Your task to perform on an android device: Search for flights from Zurich to Buenos aires Image 0: 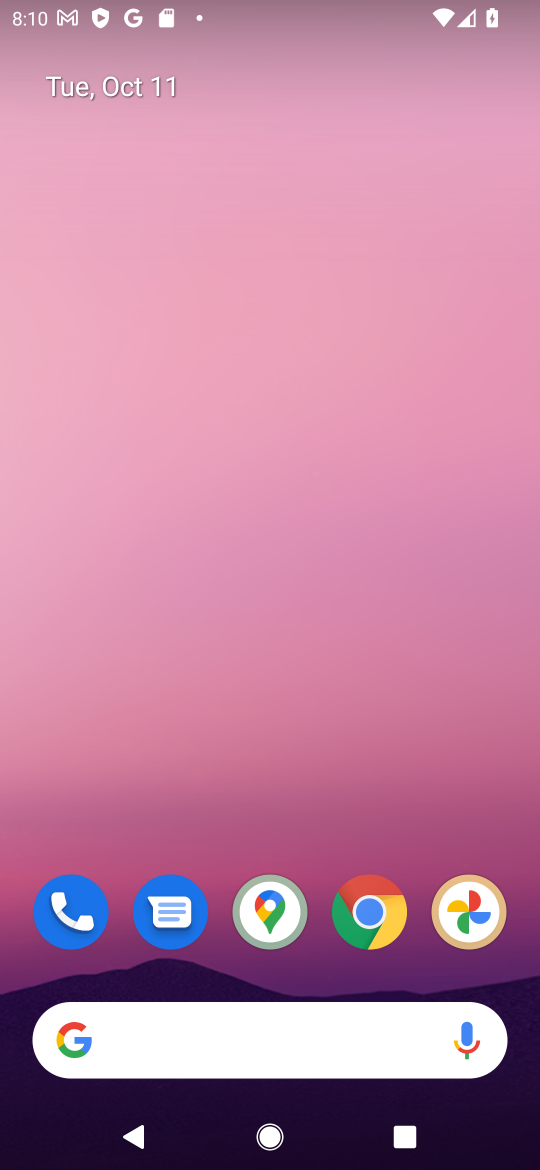
Step 0: click (370, 902)
Your task to perform on an android device: Search for flights from Zurich to Buenos aires Image 1: 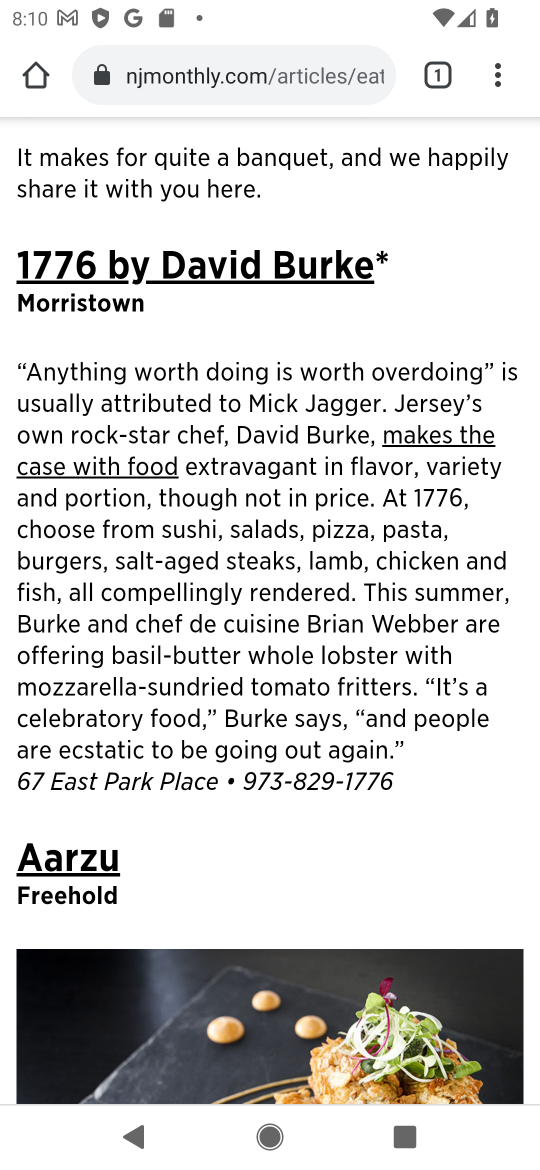
Step 1: click (226, 57)
Your task to perform on an android device: Search for flights from Zurich to Buenos aires Image 2: 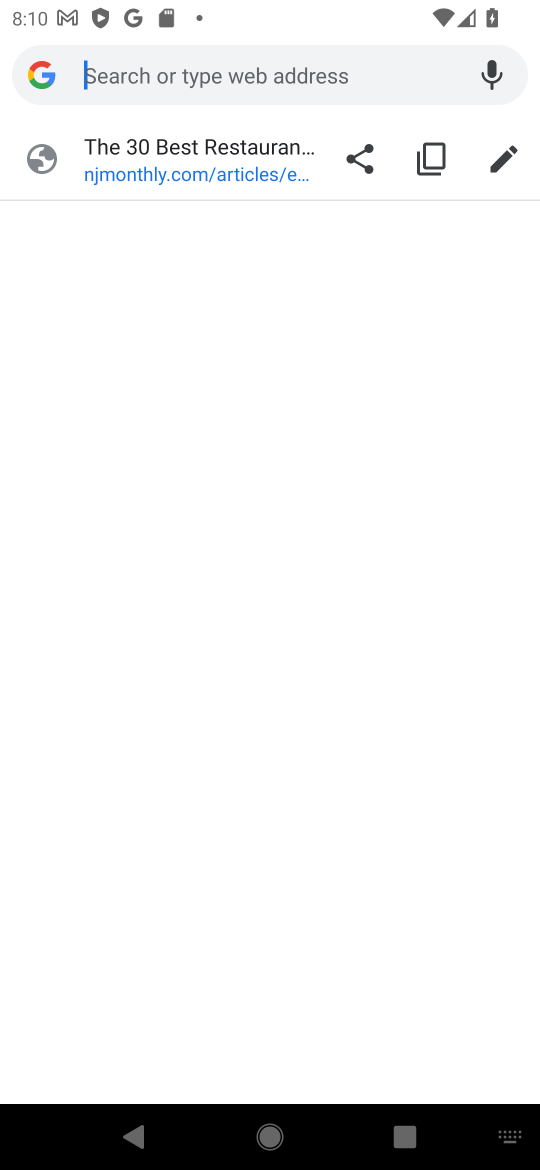
Step 2: type "expedia"
Your task to perform on an android device: Search for flights from Zurich to Buenos aires Image 3: 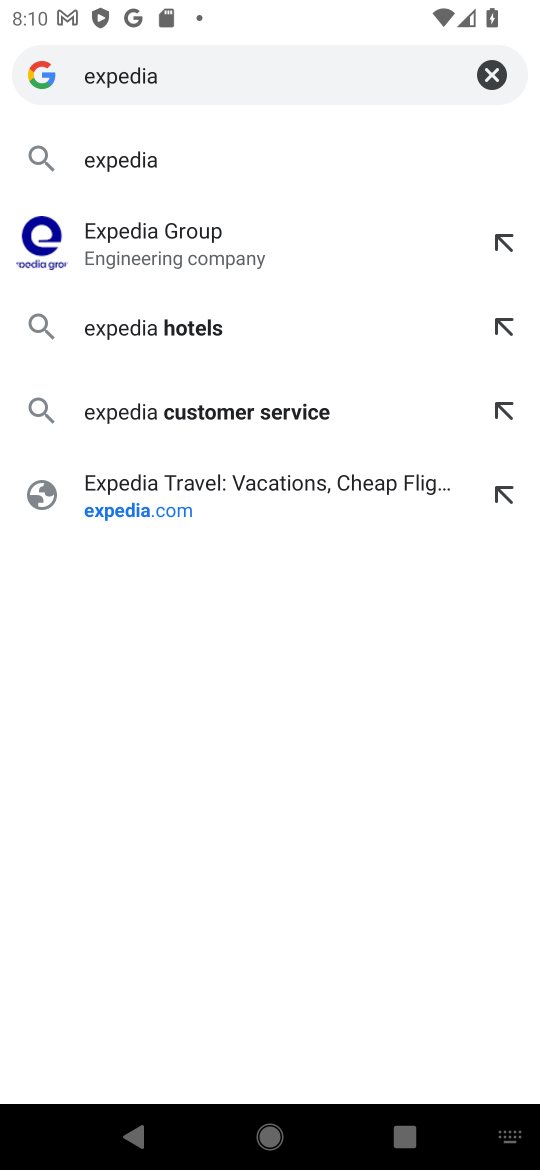
Step 3: click (117, 153)
Your task to perform on an android device: Search for flights from Zurich to Buenos aires Image 4: 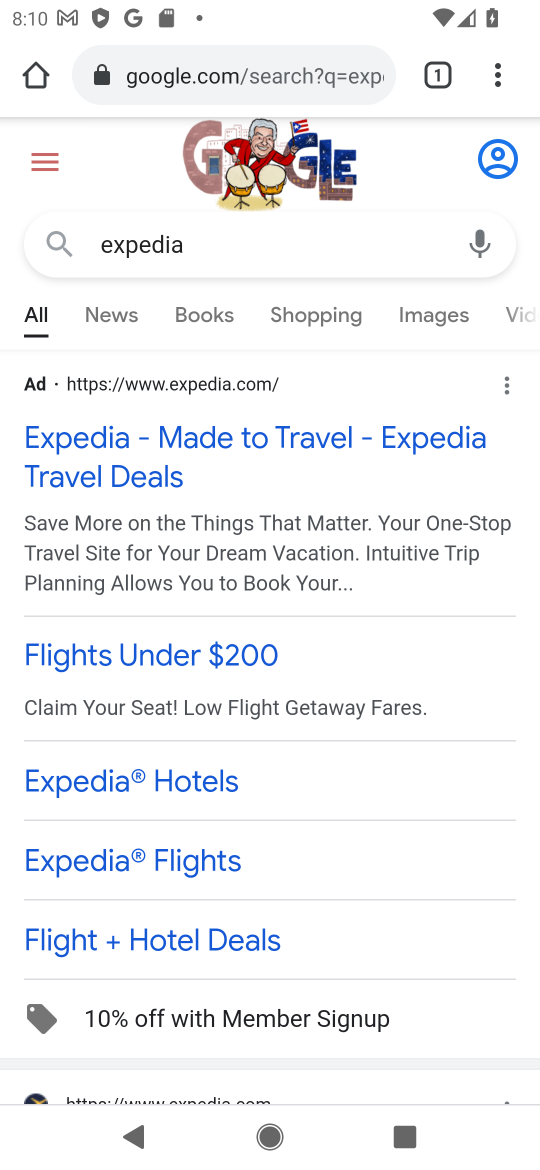
Step 4: click (168, 390)
Your task to perform on an android device: Search for flights from Zurich to Buenos aires Image 5: 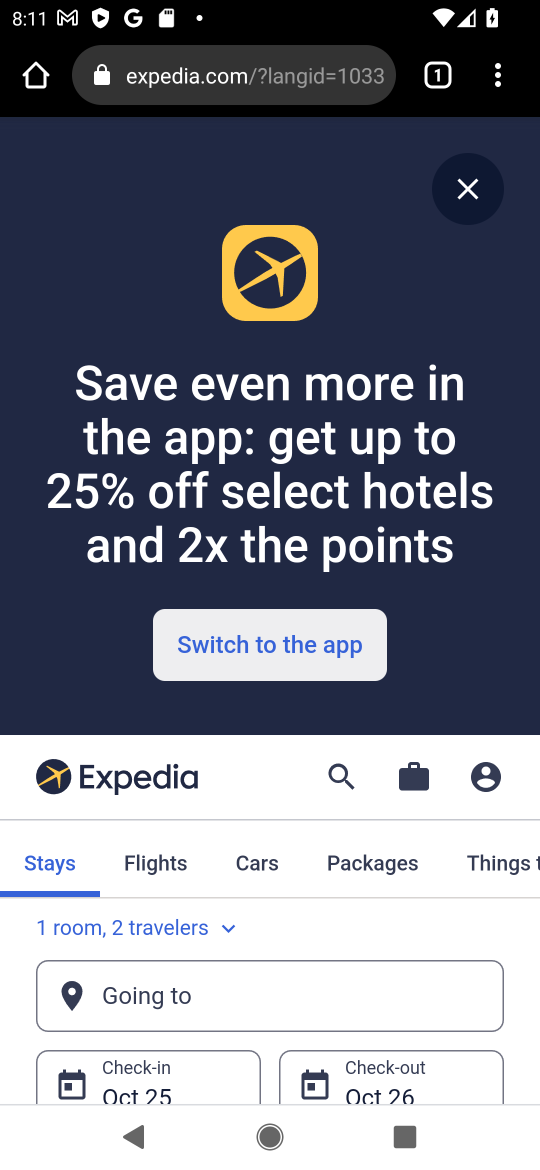
Step 5: click (468, 184)
Your task to perform on an android device: Search for flights from Zurich to Buenos aires Image 6: 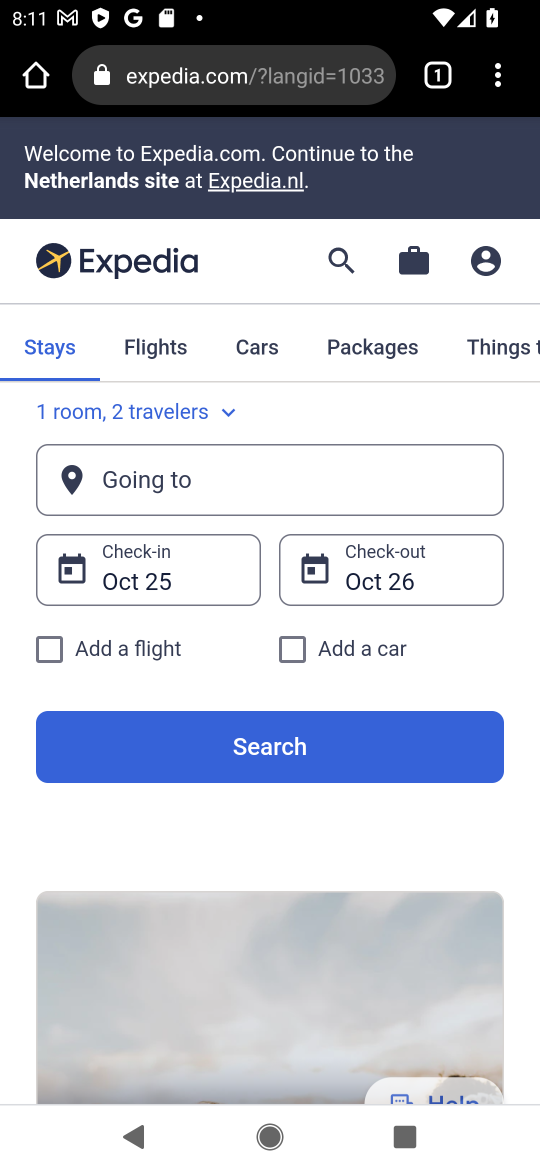
Step 6: click (154, 351)
Your task to perform on an android device: Search for flights from Zurich to Buenos aires Image 7: 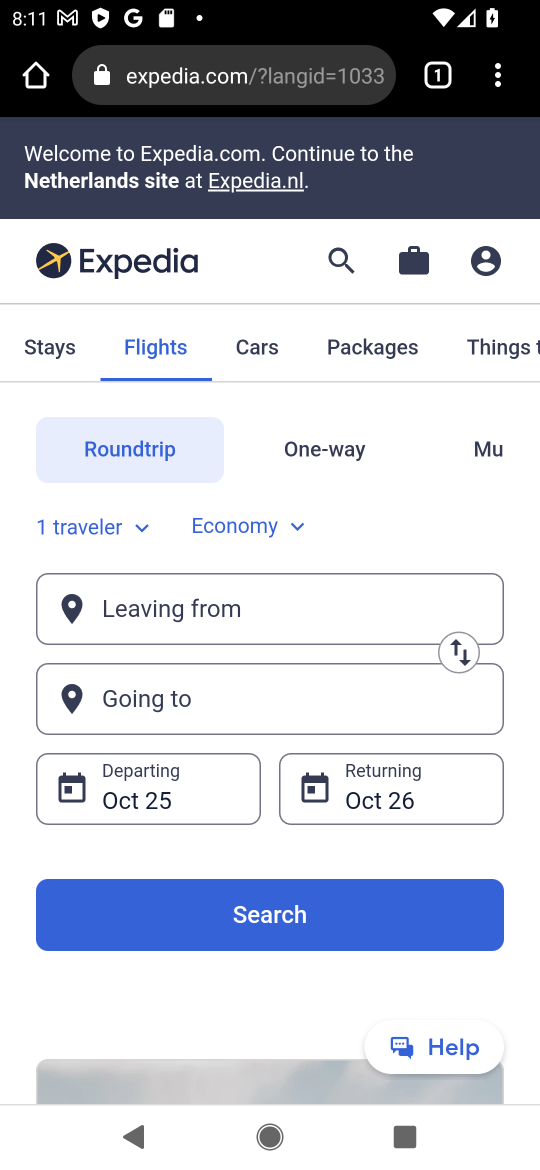
Step 7: click (77, 598)
Your task to perform on an android device: Search for flights from Zurich to Buenos aires Image 8: 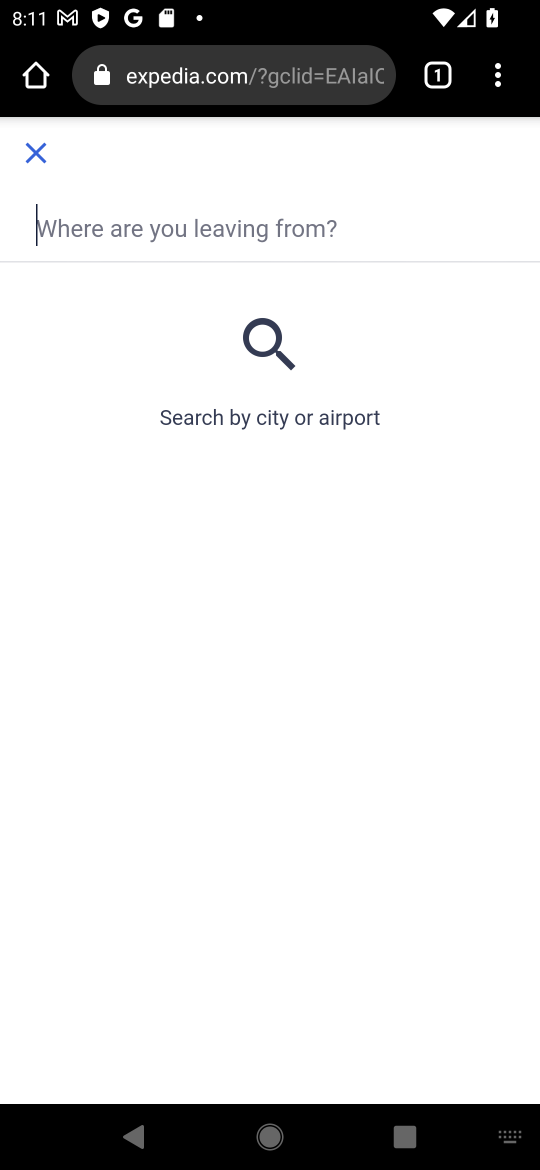
Step 8: type "zurich"
Your task to perform on an android device: Search for flights from Zurich to Buenos aires Image 9: 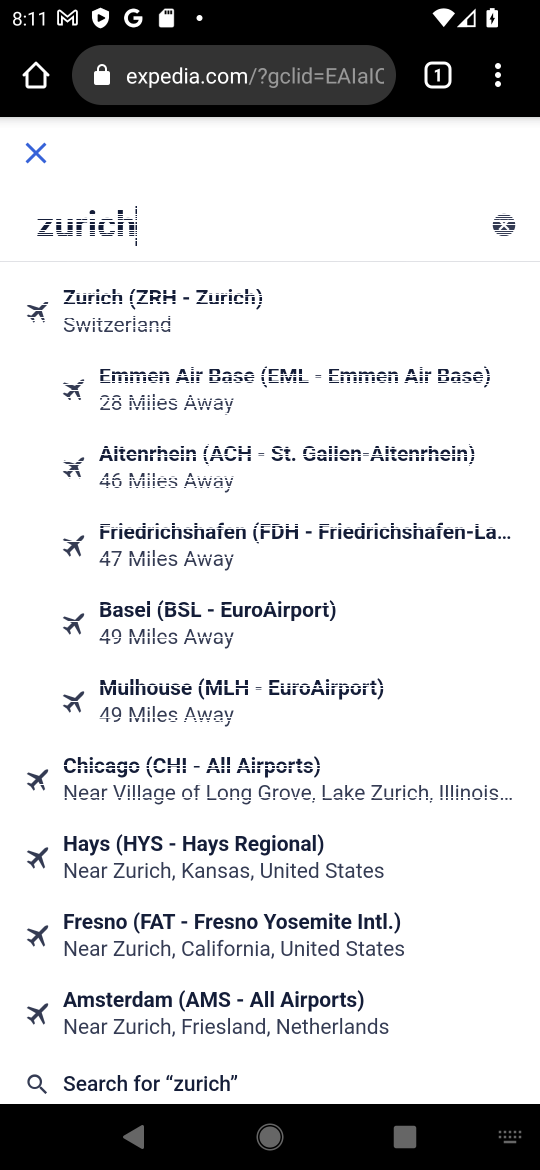
Step 9: click (122, 302)
Your task to perform on an android device: Search for flights from Zurich to Buenos aires Image 10: 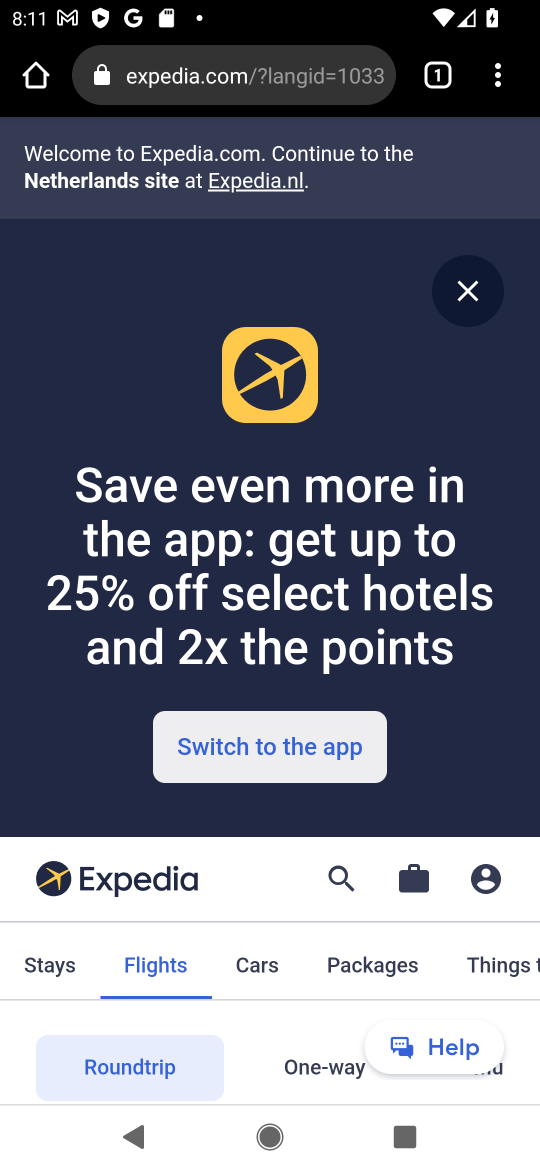
Step 10: click (455, 281)
Your task to perform on an android device: Search for flights from Zurich to Buenos aires Image 11: 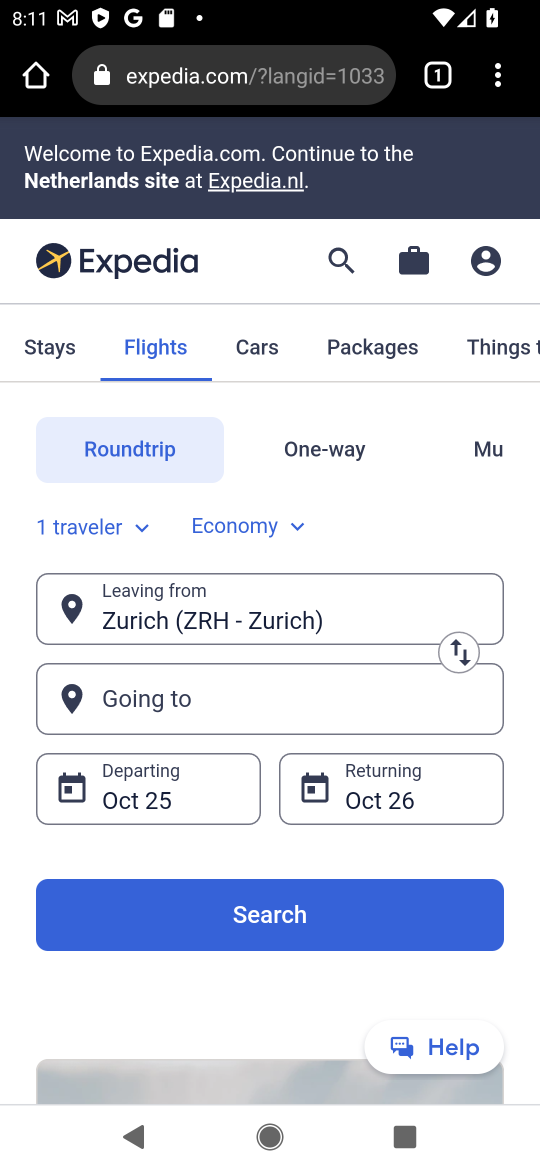
Step 11: click (150, 697)
Your task to perform on an android device: Search for flights from Zurich to Buenos aires Image 12: 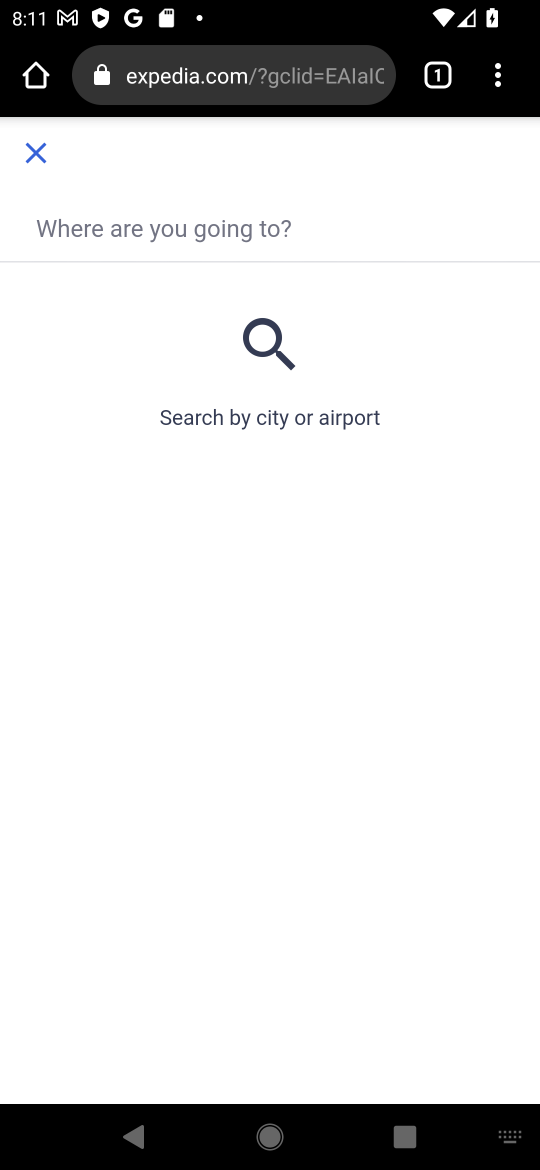
Step 12: type "Buenos aires"
Your task to perform on an android device: Search for flights from Zurich to Buenos aires Image 13: 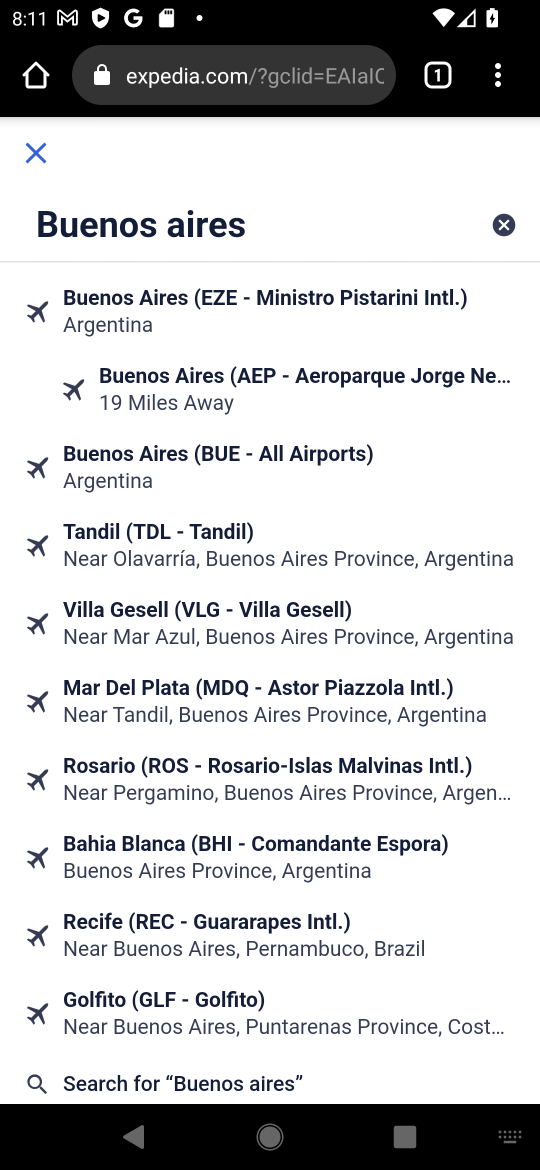
Step 13: click (146, 288)
Your task to perform on an android device: Search for flights from Zurich to Buenos aires Image 14: 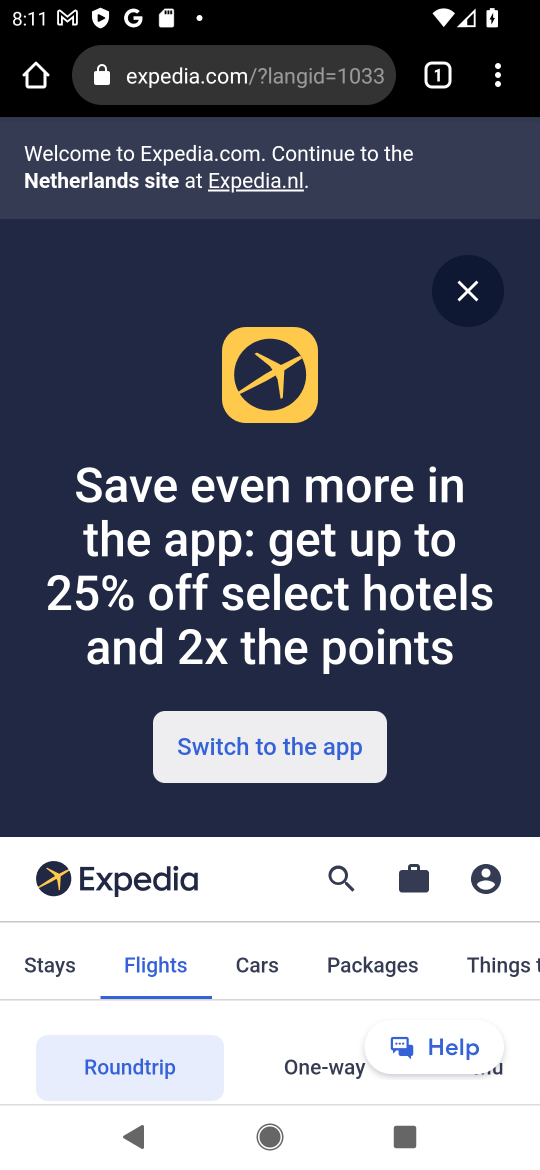
Step 14: click (468, 286)
Your task to perform on an android device: Search for flights from Zurich to Buenos aires Image 15: 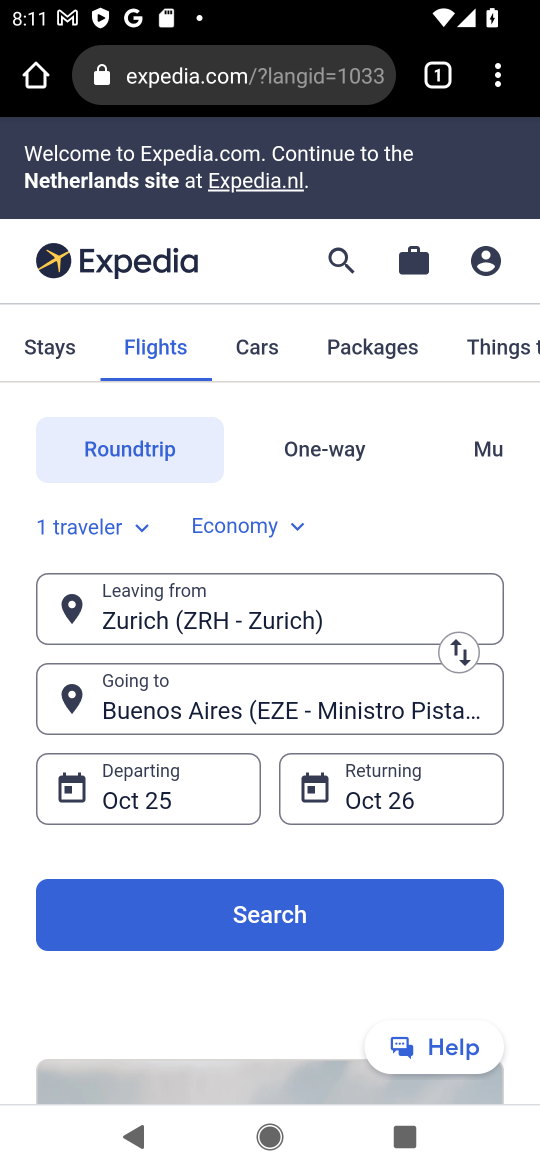
Step 15: drag from (338, 522) to (319, 180)
Your task to perform on an android device: Search for flights from Zurich to Buenos aires Image 16: 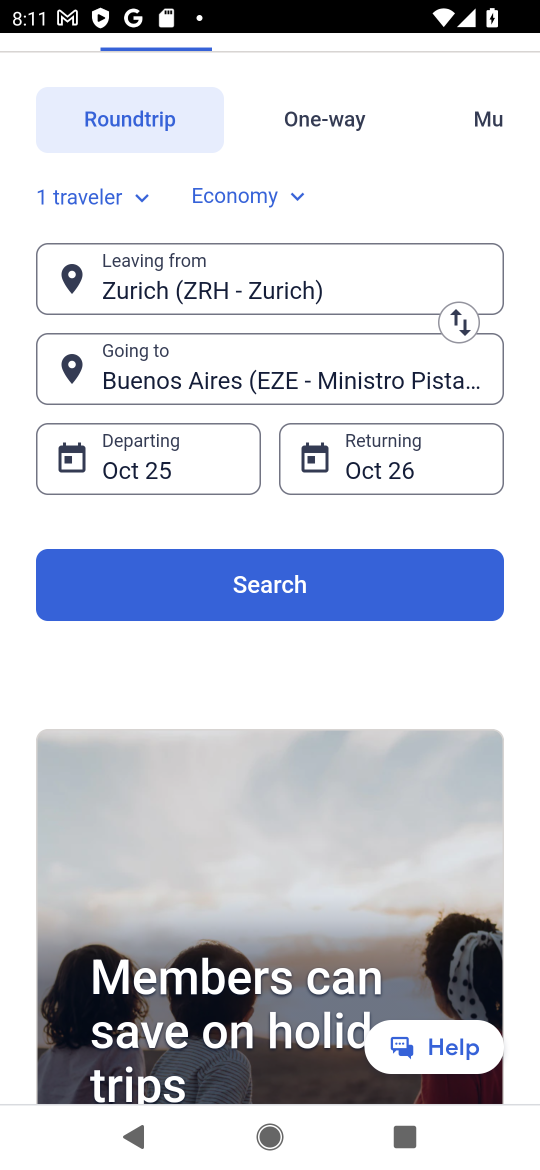
Step 16: click (264, 585)
Your task to perform on an android device: Search for flights from Zurich to Buenos aires Image 17: 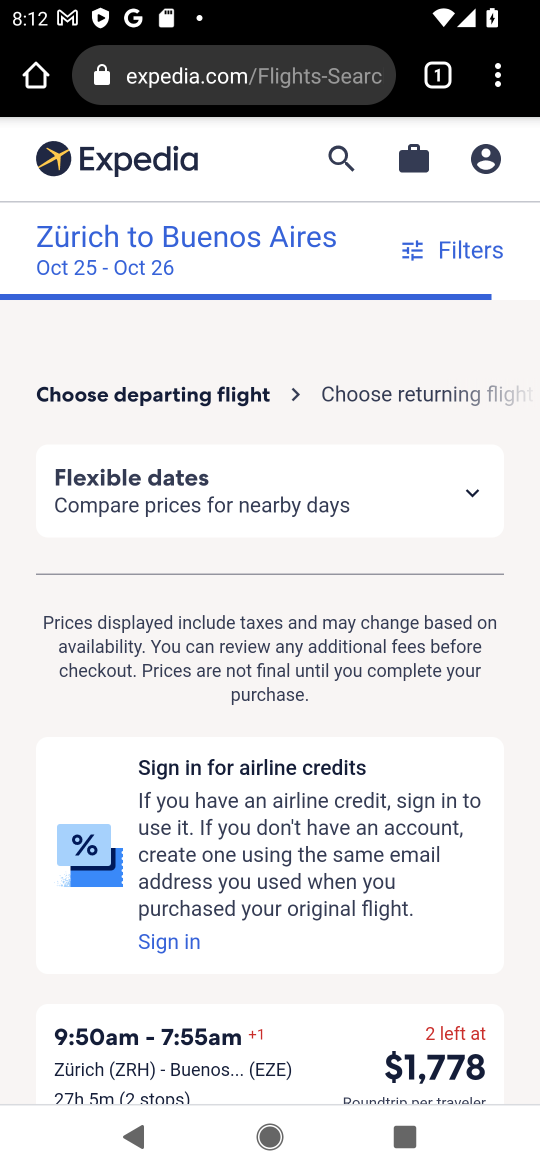
Step 17: task complete